Your task to perform on an android device: What's the news this morning? Image 0: 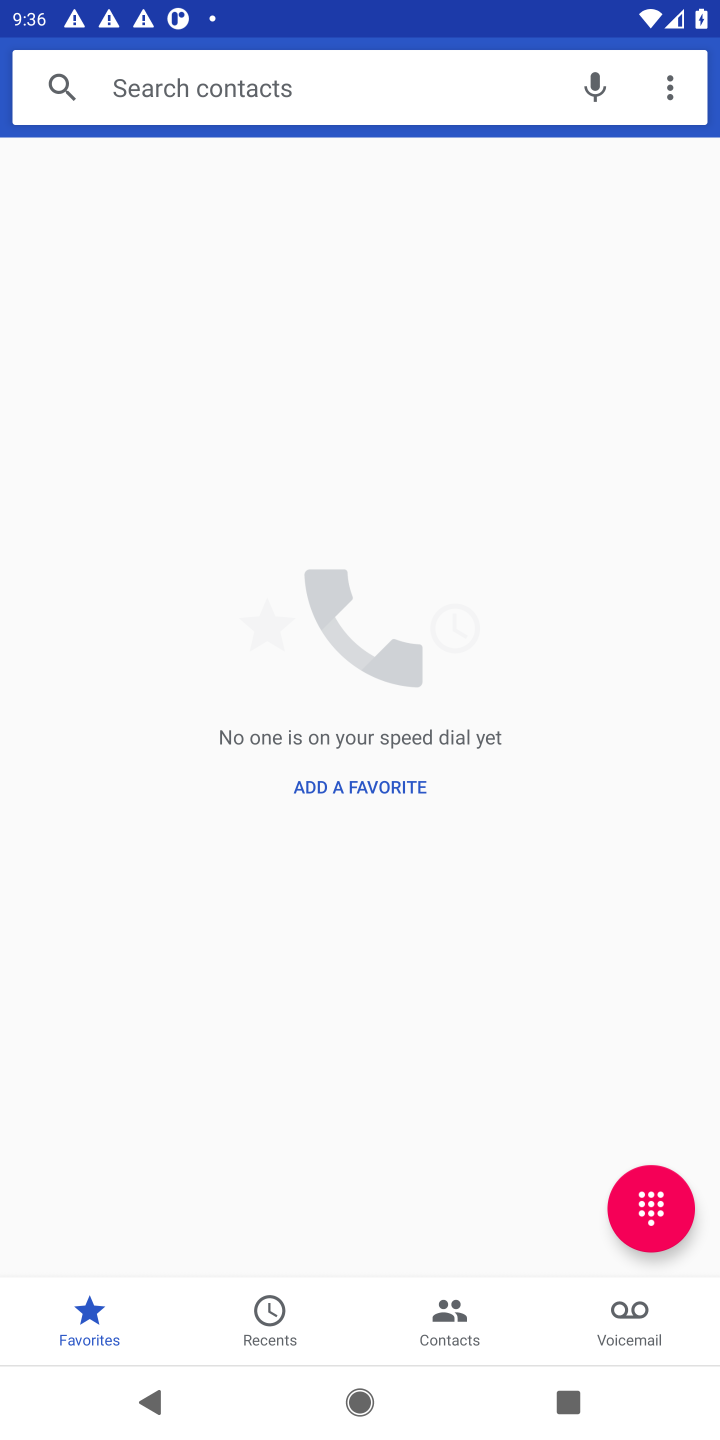
Step 0: press home button
Your task to perform on an android device: What's the news this morning? Image 1: 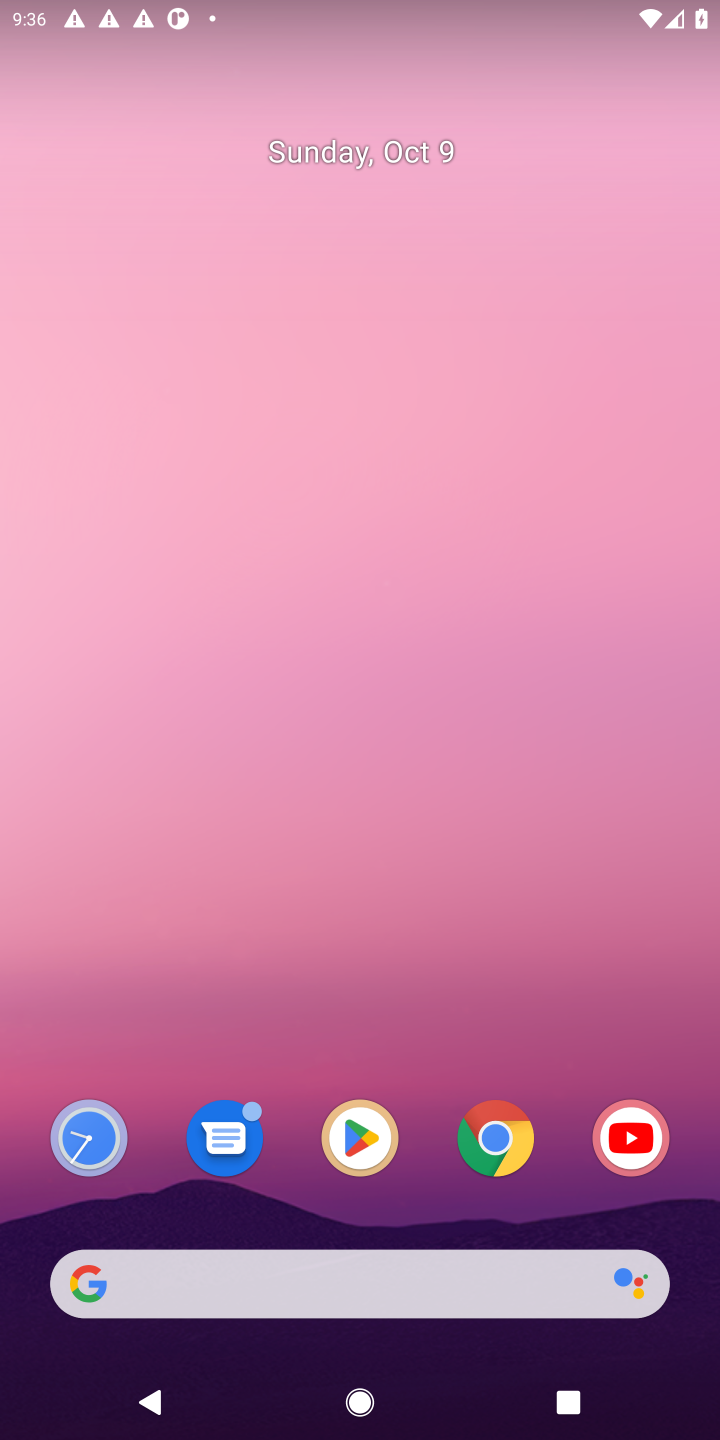
Step 1: click (494, 1147)
Your task to perform on an android device: What's the news this morning? Image 2: 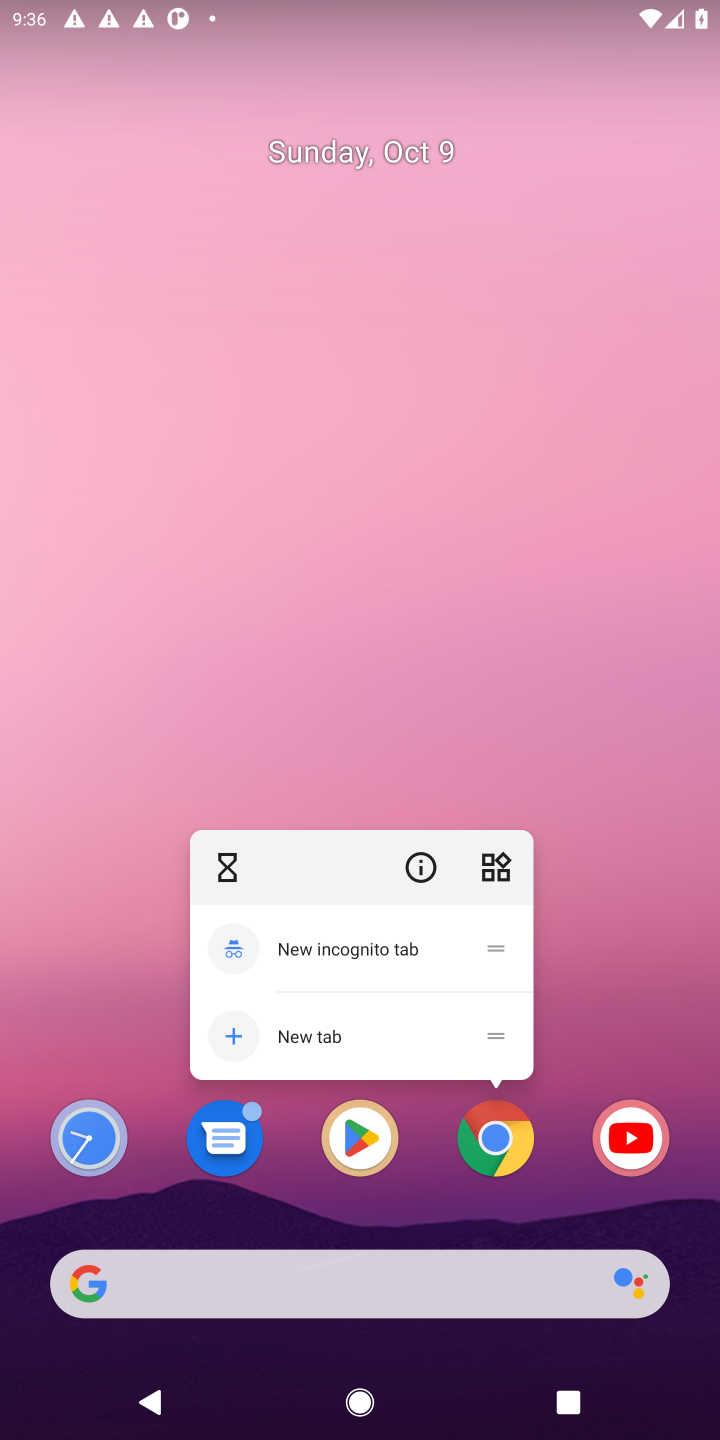
Step 2: click (494, 1147)
Your task to perform on an android device: What's the news this morning? Image 3: 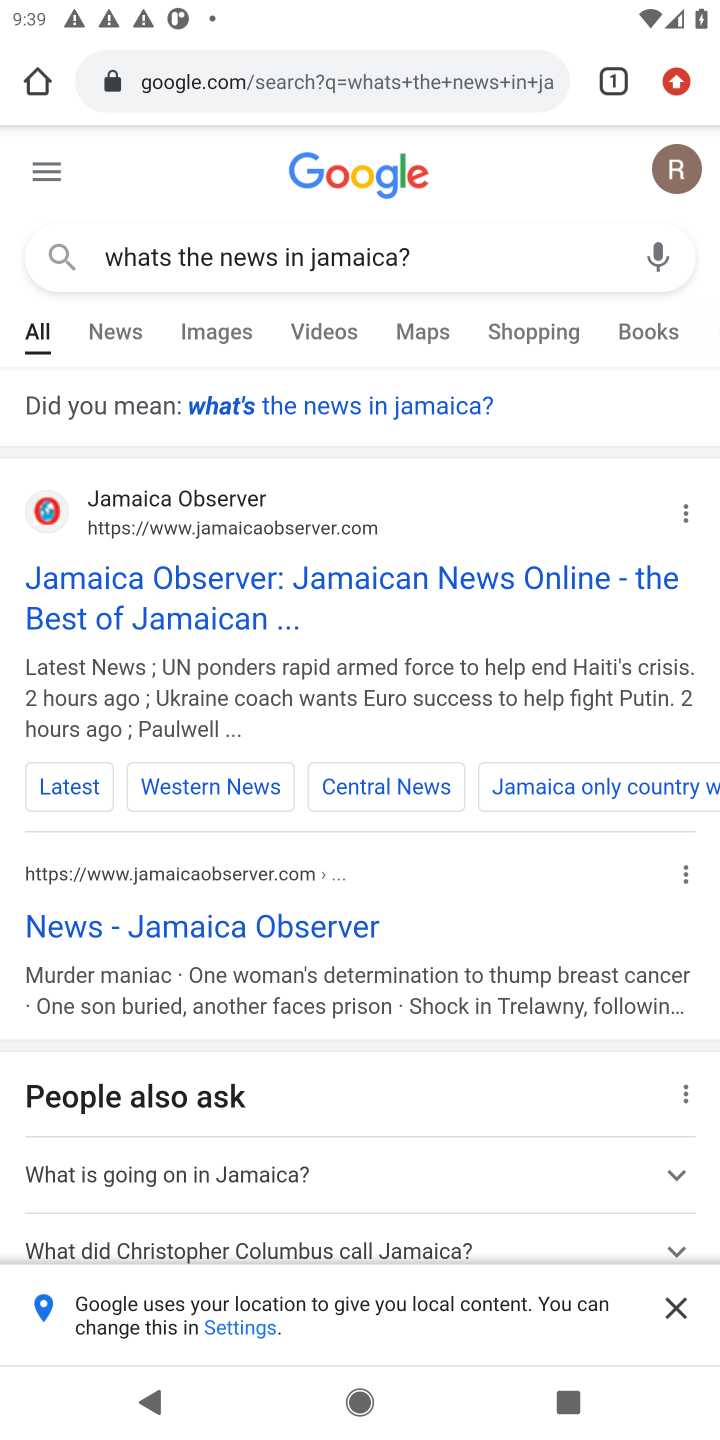
Step 3: click (383, 84)
Your task to perform on an android device: What's the news this morning? Image 4: 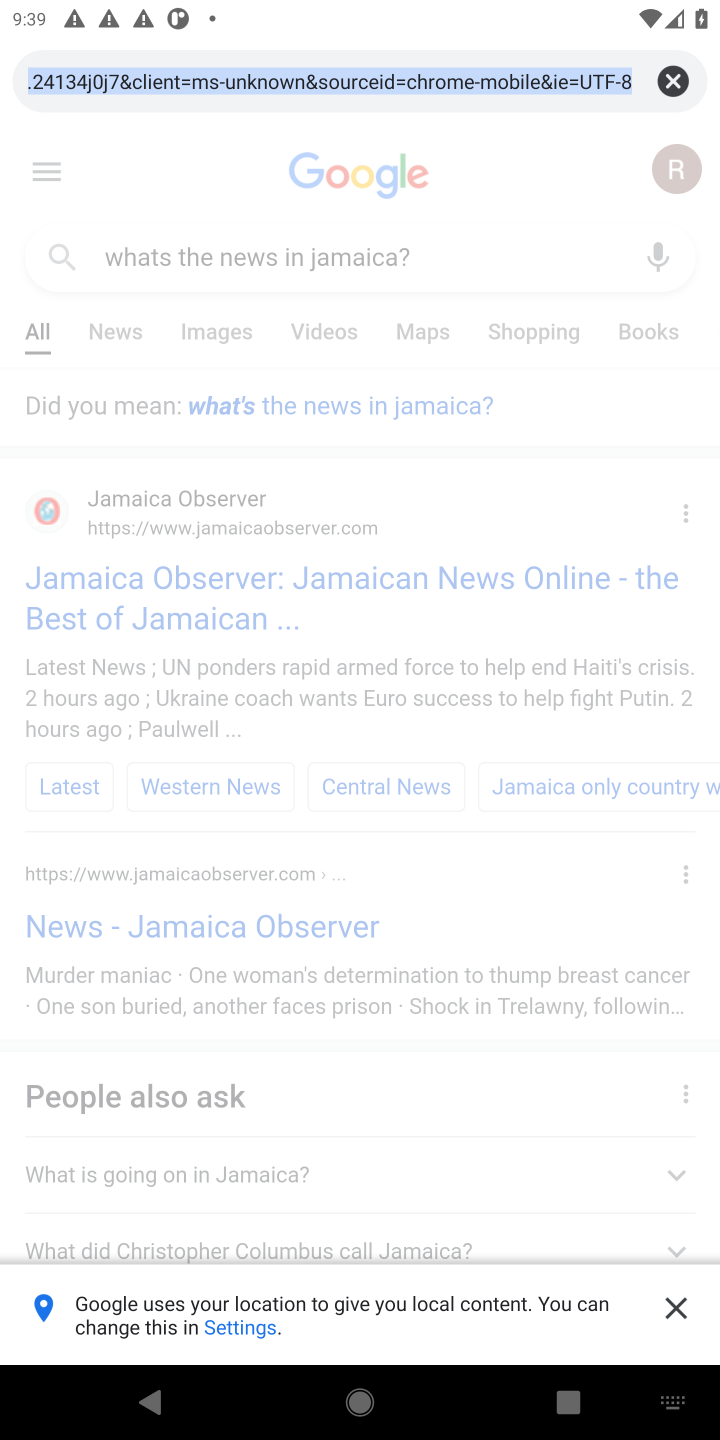
Step 4: click (672, 81)
Your task to perform on an android device: What's the news this morning? Image 5: 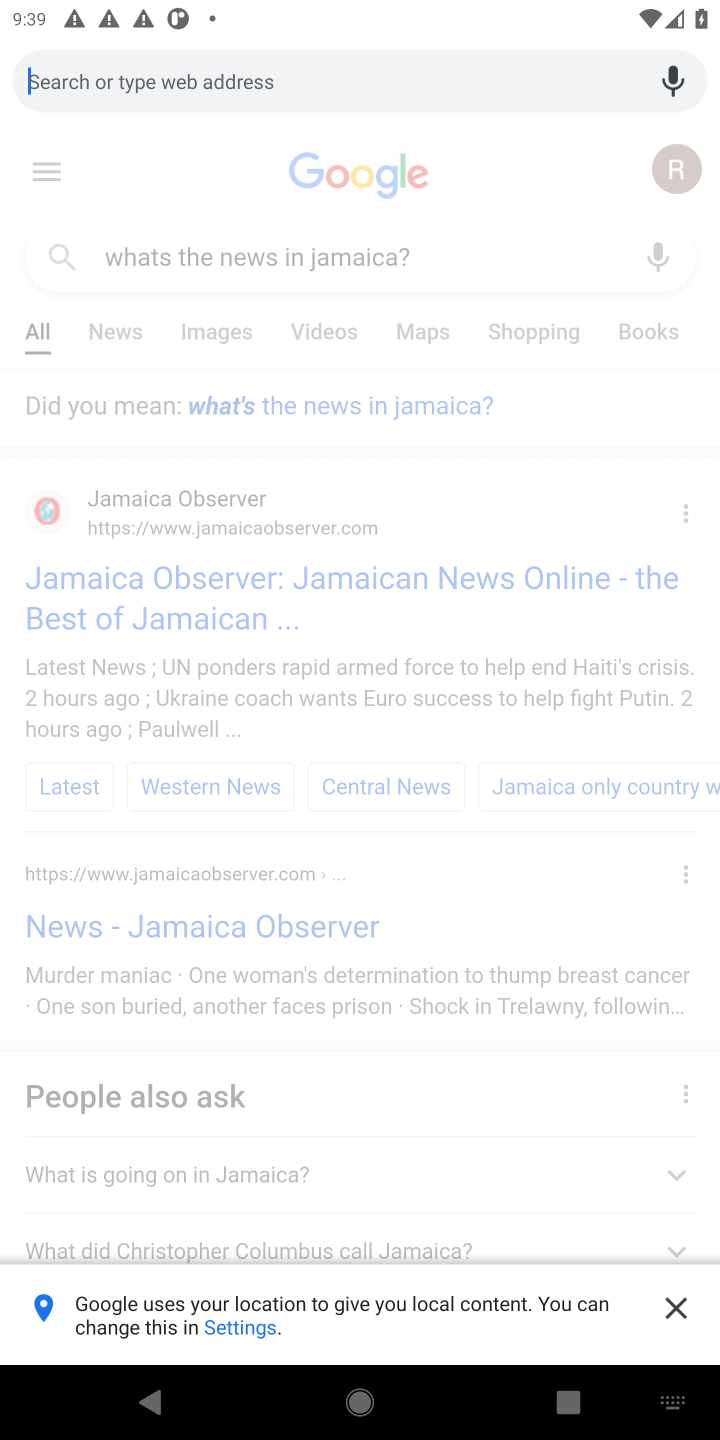
Step 5: type "the news this morning"
Your task to perform on an android device: What's the news this morning? Image 6: 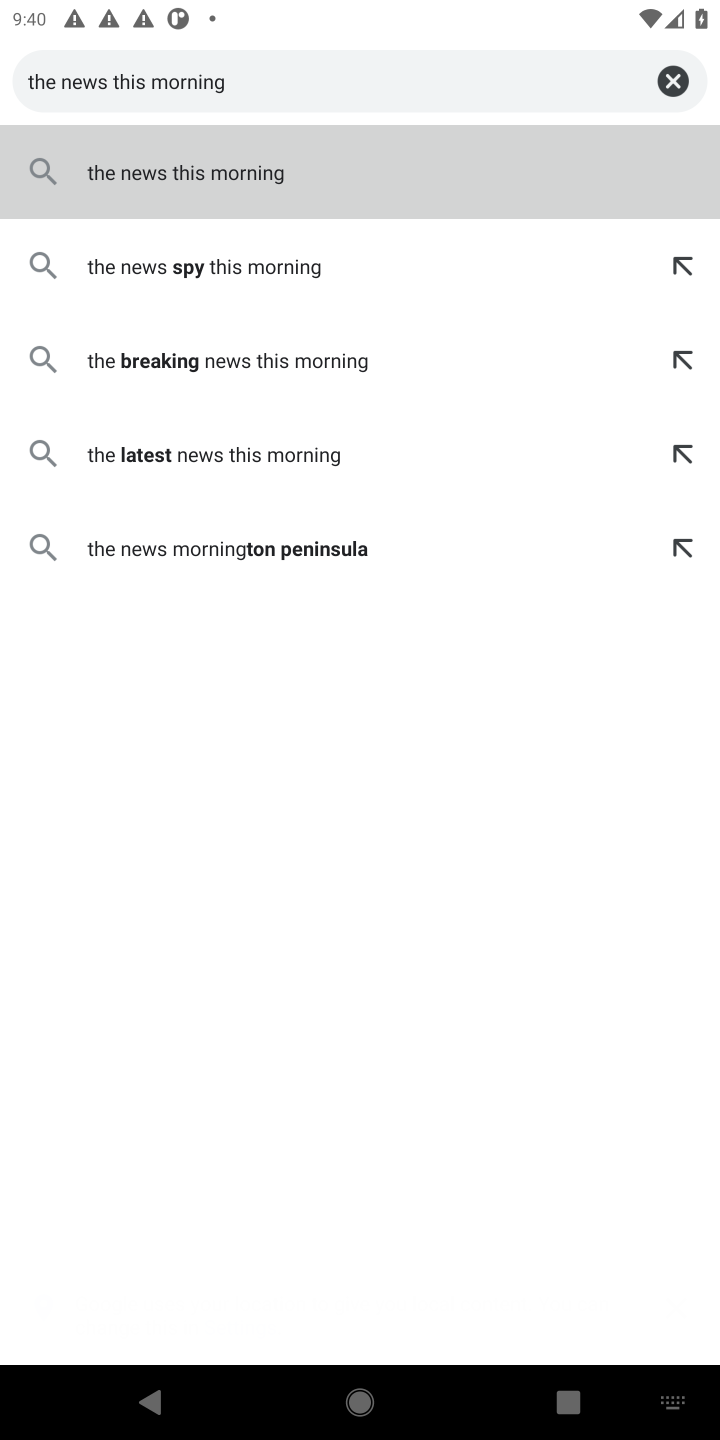
Step 6: click (386, 175)
Your task to perform on an android device: What's the news this morning? Image 7: 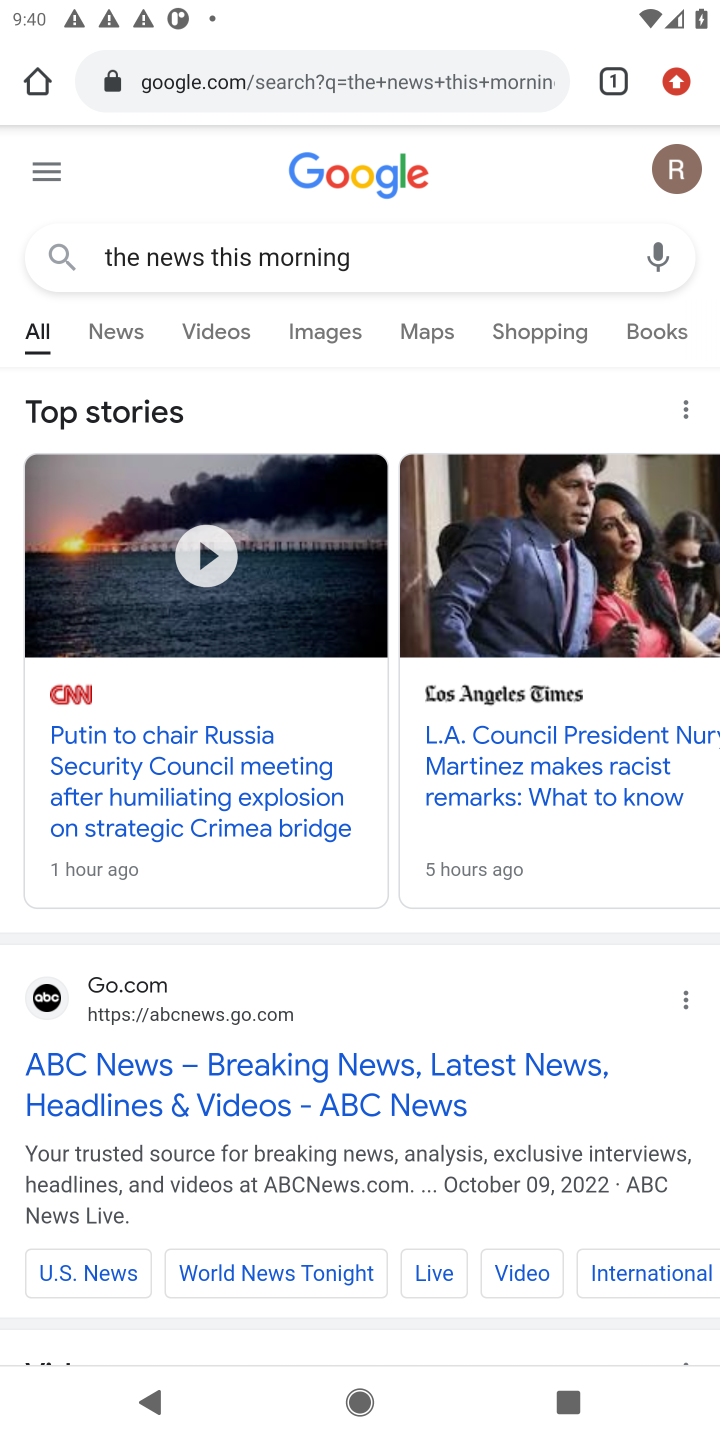
Step 7: task complete